Your task to perform on an android device: turn off wifi Image 0: 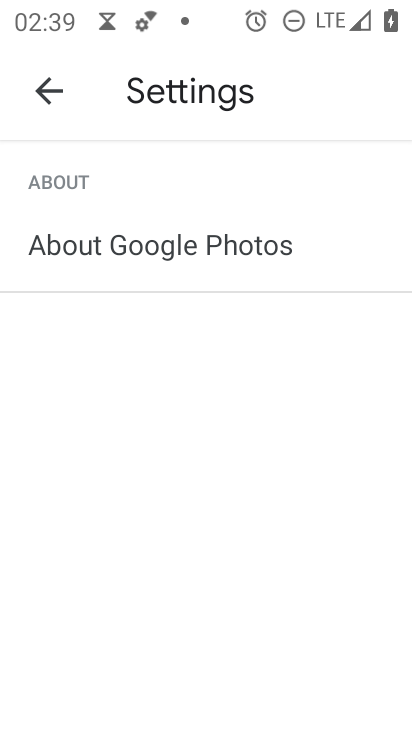
Step 0: press home button
Your task to perform on an android device: turn off wifi Image 1: 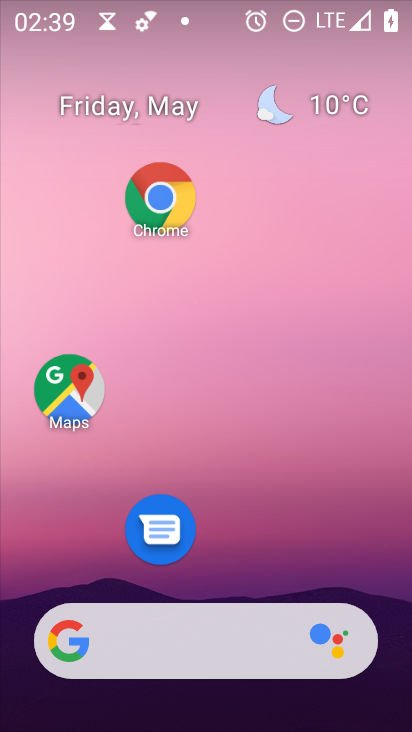
Step 1: drag from (245, 570) to (273, 285)
Your task to perform on an android device: turn off wifi Image 2: 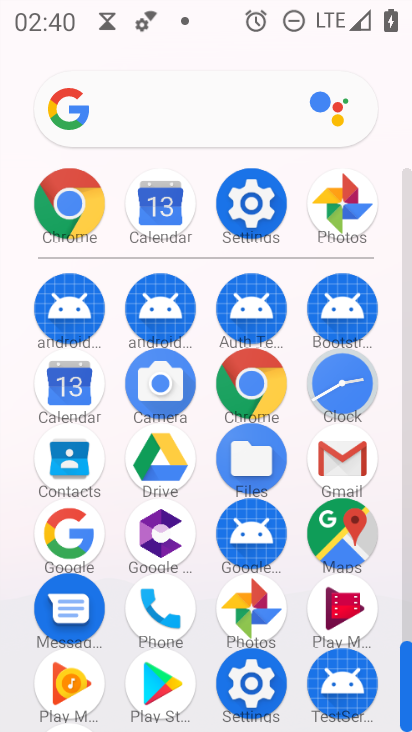
Step 2: click (241, 202)
Your task to perform on an android device: turn off wifi Image 3: 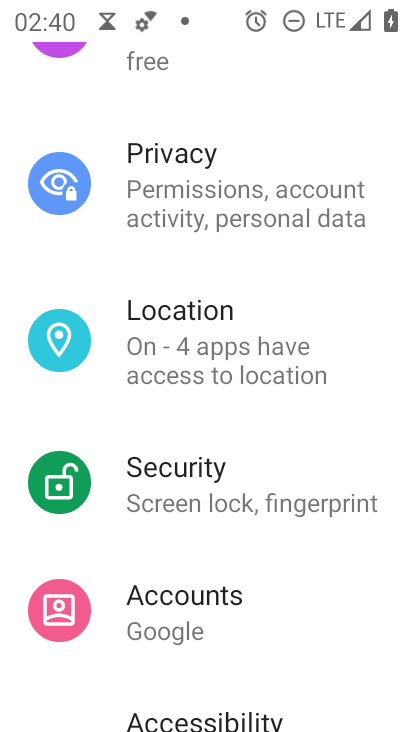
Step 3: drag from (220, 114) to (167, 700)
Your task to perform on an android device: turn off wifi Image 4: 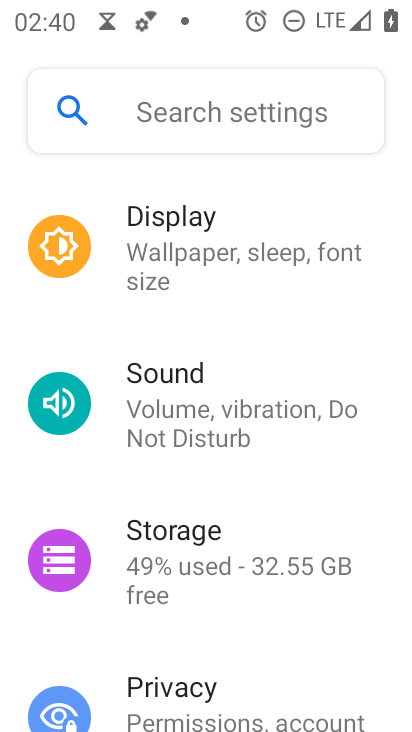
Step 4: drag from (184, 232) to (190, 681)
Your task to perform on an android device: turn off wifi Image 5: 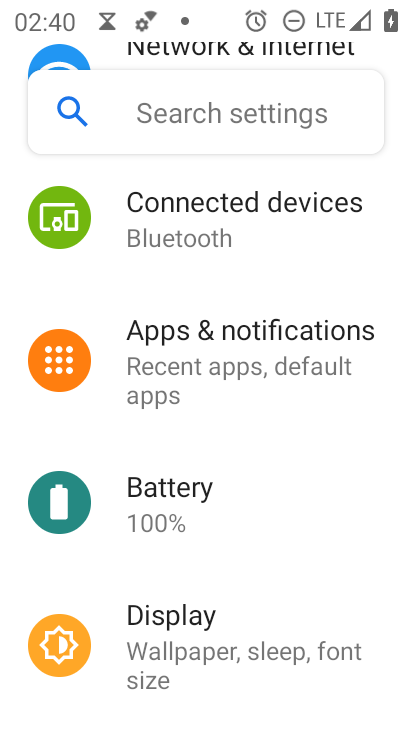
Step 5: drag from (252, 169) to (223, 679)
Your task to perform on an android device: turn off wifi Image 6: 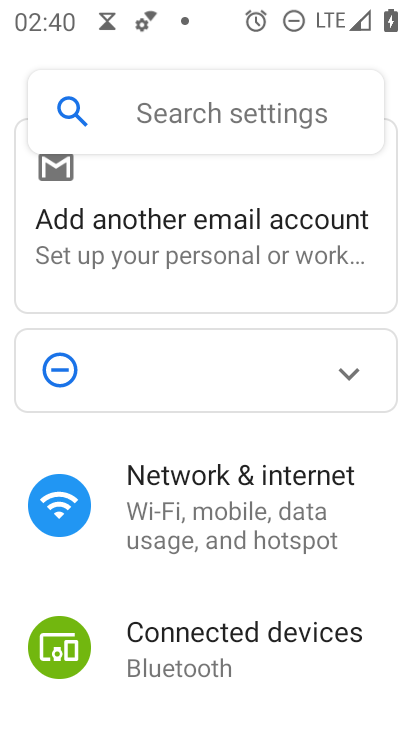
Step 6: click (216, 511)
Your task to perform on an android device: turn off wifi Image 7: 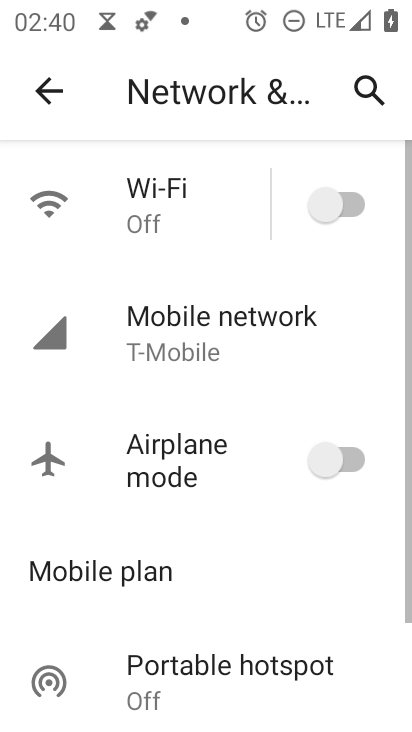
Step 7: click (226, 322)
Your task to perform on an android device: turn off wifi Image 8: 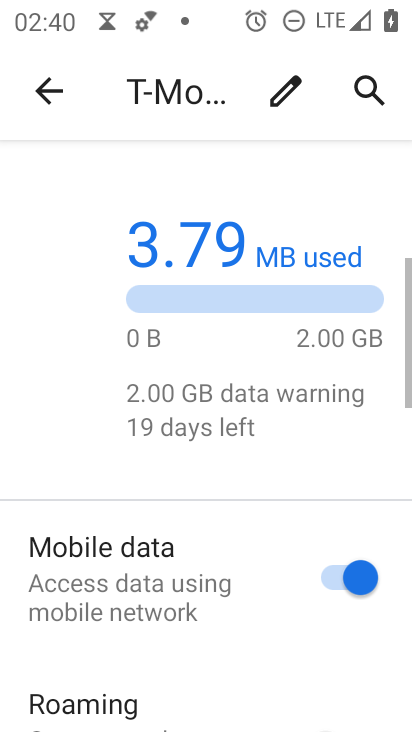
Step 8: click (47, 98)
Your task to perform on an android device: turn off wifi Image 9: 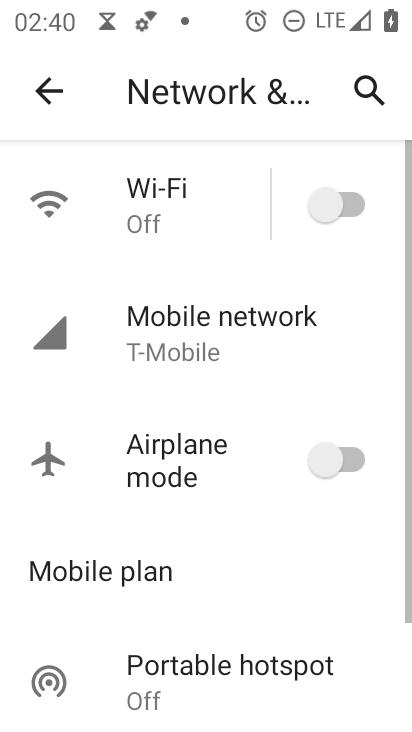
Step 9: task complete